Your task to perform on an android device: Open the stopwatch Image 0: 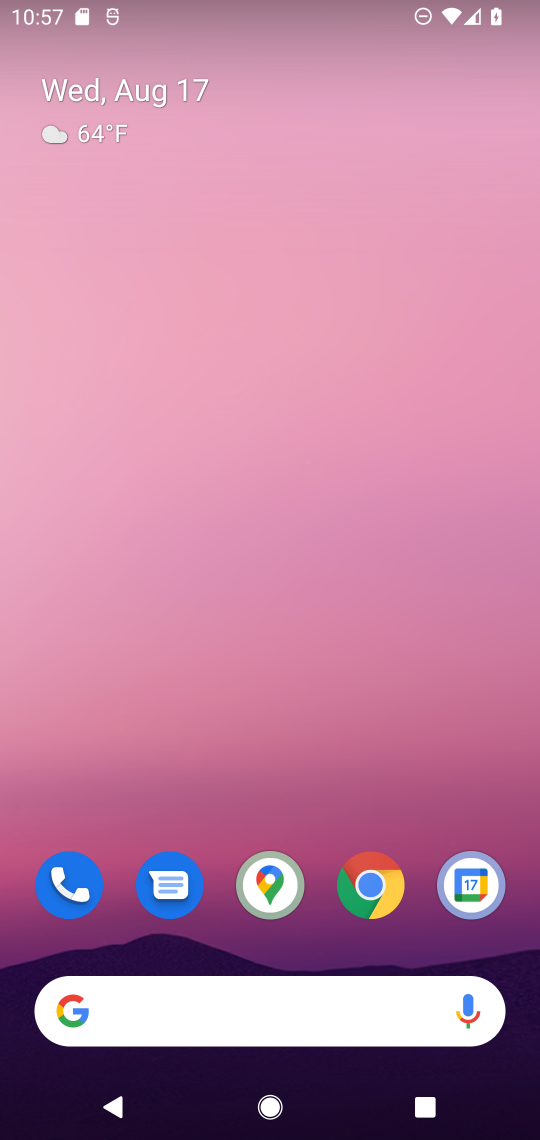
Step 0: drag from (420, 947) to (359, 139)
Your task to perform on an android device: Open the stopwatch Image 1: 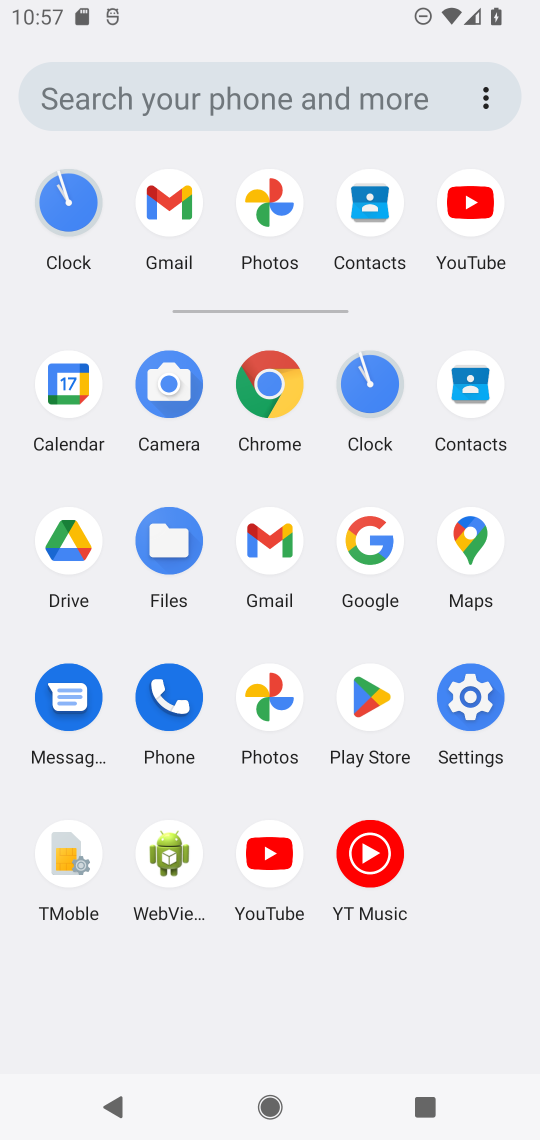
Step 1: click (367, 382)
Your task to perform on an android device: Open the stopwatch Image 2: 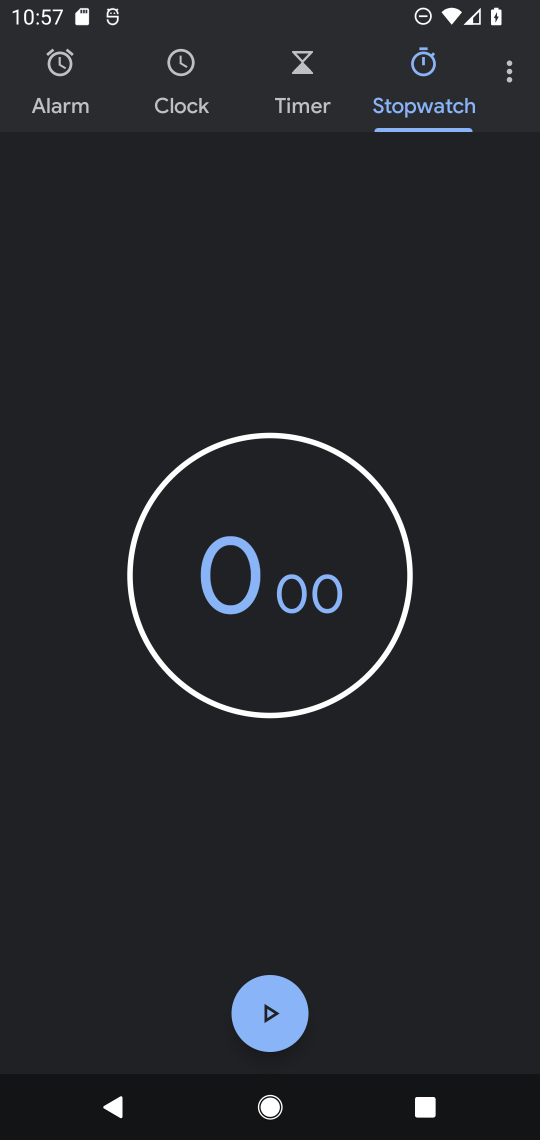
Step 2: task complete